Your task to perform on an android device: toggle wifi Image 0: 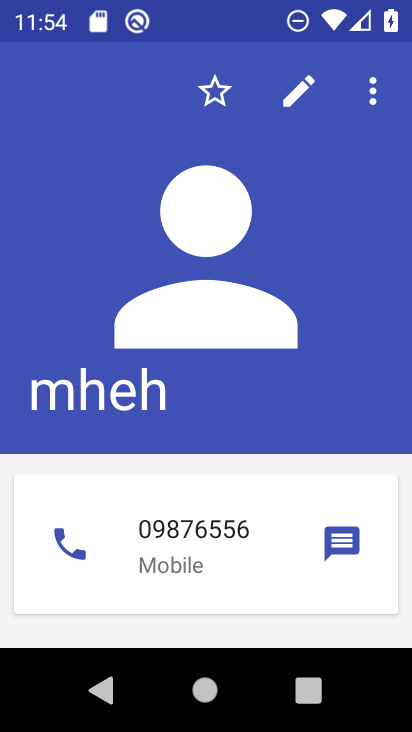
Step 0: press home button
Your task to perform on an android device: toggle wifi Image 1: 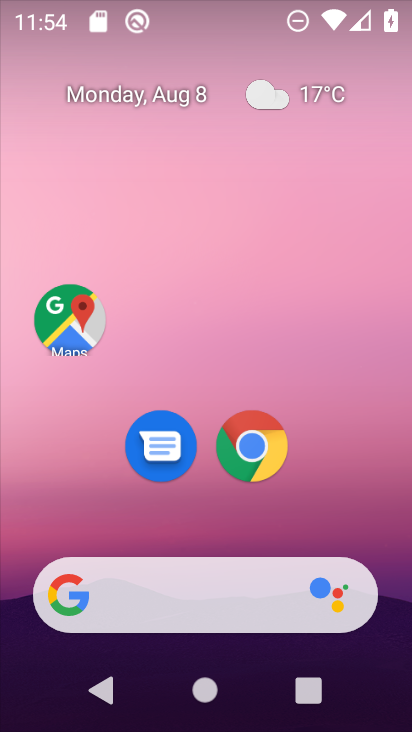
Step 1: drag from (391, 619) to (339, 89)
Your task to perform on an android device: toggle wifi Image 2: 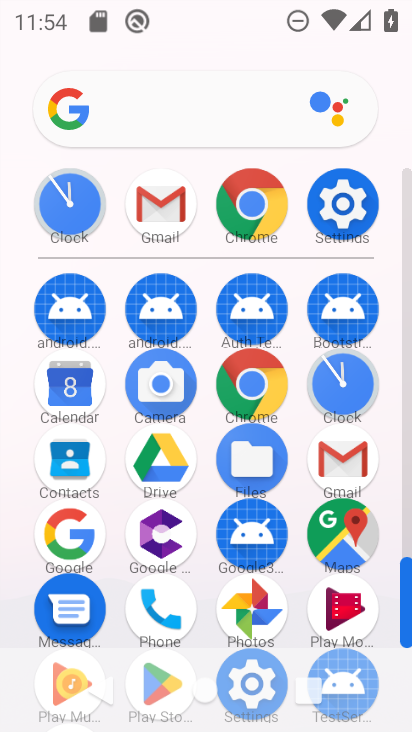
Step 2: click (407, 535)
Your task to perform on an android device: toggle wifi Image 3: 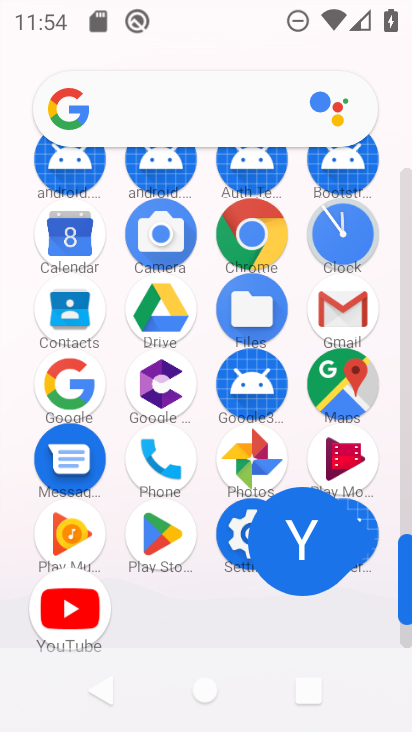
Step 3: click (407, 535)
Your task to perform on an android device: toggle wifi Image 4: 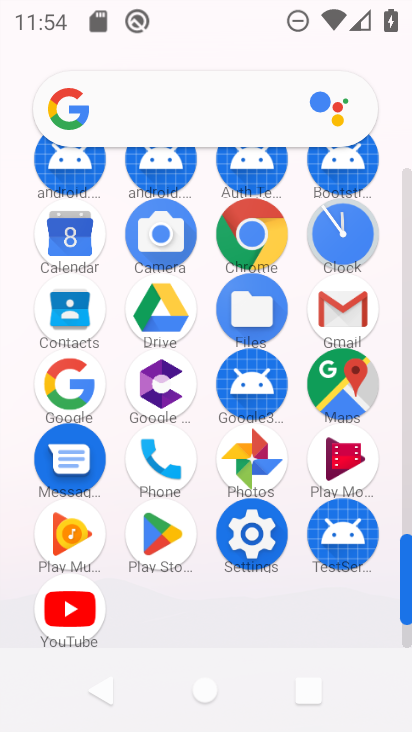
Step 4: click (252, 532)
Your task to perform on an android device: toggle wifi Image 5: 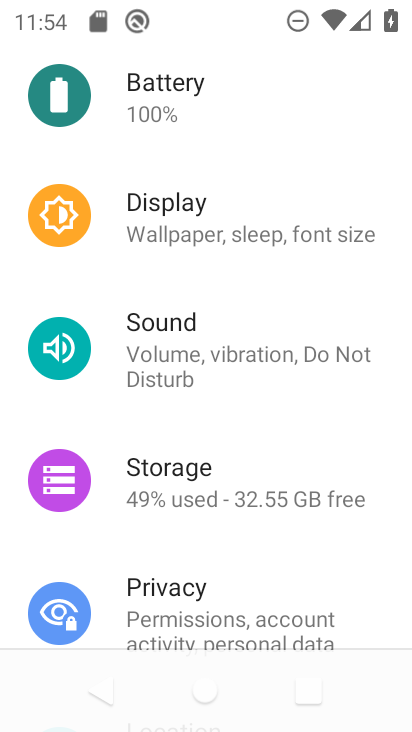
Step 5: drag from (320, 185) to (320, 357)
Your task to perform on an android device: toggle wifi Image 6: 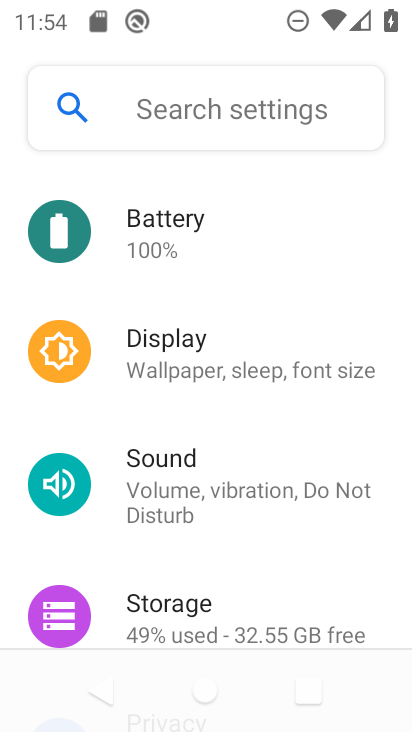
Step 6: drag from (311, 215) to (322, 508)
Your task to perform on an android device: toggle wifi Image 7: 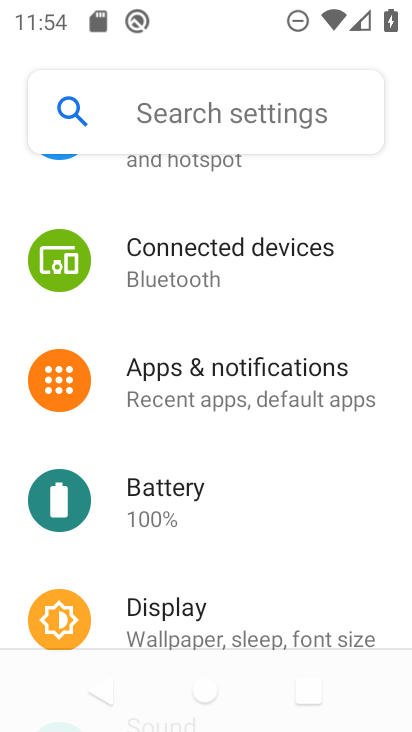
Step 7: drag from (301, 242) to (297, 517)
Your task to perform on an android device: toggle wifi Image 8: 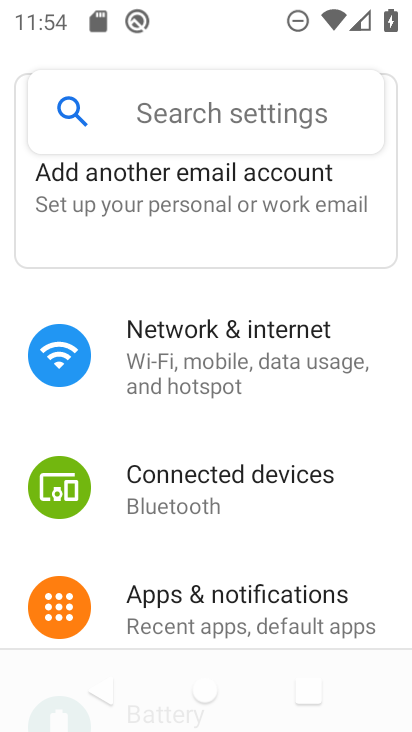
Step 8: click (159, 346)
Your task to perform on an android device: toggle wifi Image 9: 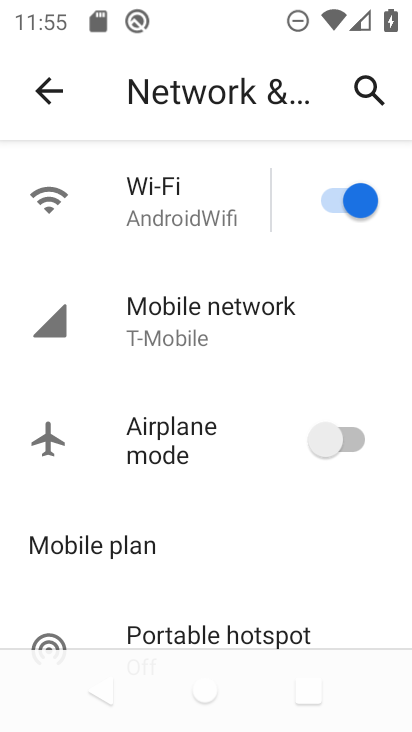
Step 9: click (322, 202)
Your task to perform on an android device: toggle wifi Image 10: 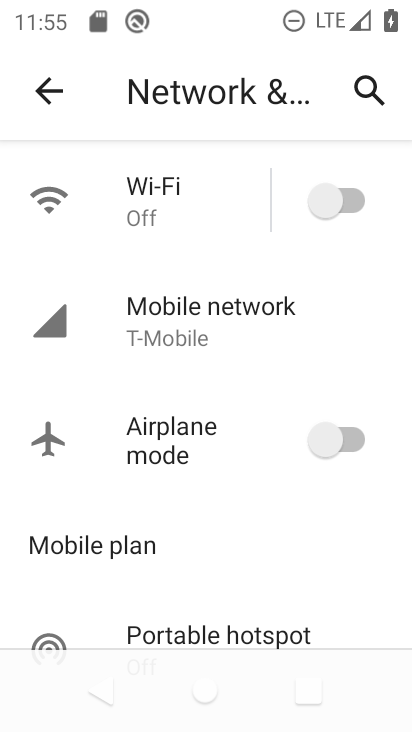
Step 10: task complete